Your task to perform on an android device: remove spam from my inbox in the gmail app Image 0: 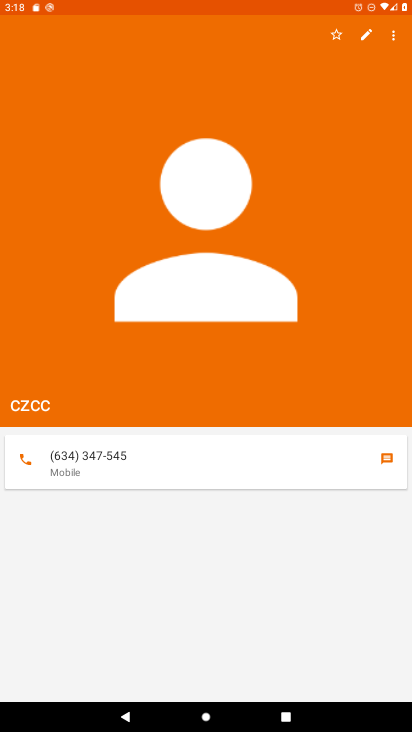
Step 0: press home button
Your task to perform on an android device: remove spam from my inbox in the gmail app Image 1: 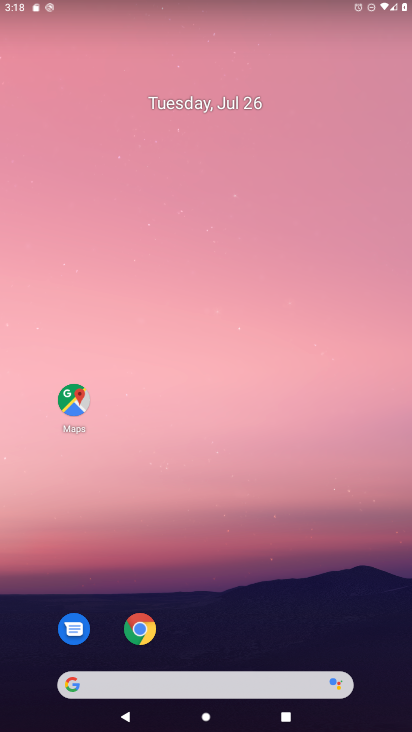
Step 1: drag from (220, 622) to (202, 225)
Your task to perform on an android device: remove spam from my inbox in the gmail app Image 2: 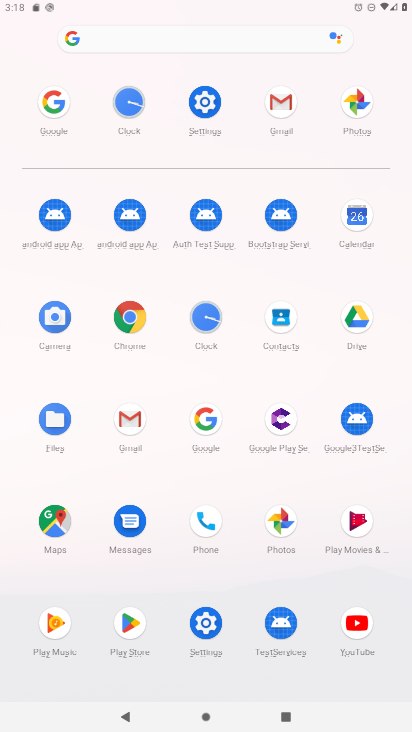
Step 2: click (290, 107)
Your task to perform on an android device: remove spam from my inbox in the gmail app Image 3: 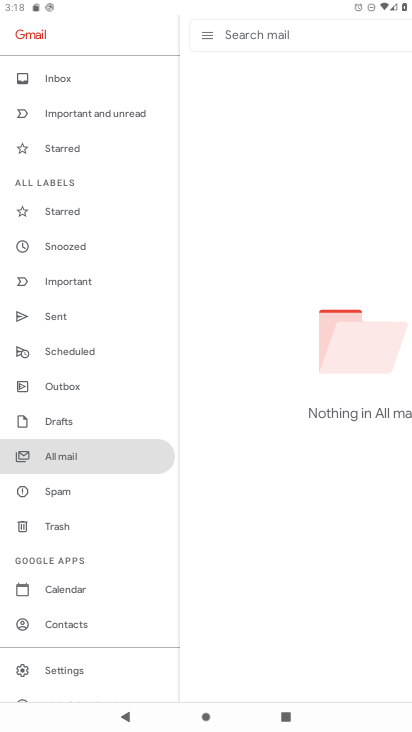
Step 3: click (60, 494)
Your task to perform on an android device: remove spam from my inbox in the gmail app Image 4: 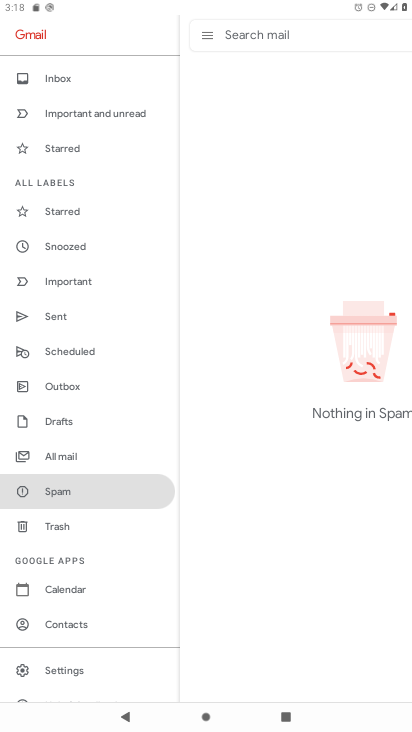
Step 4: task complete